Your task to perform on an android device: toggle wifi Image 0: 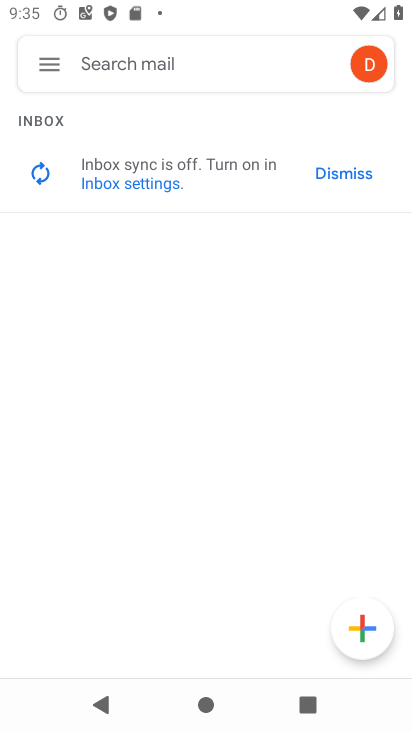
Step 0: press home button
Your task to perform on an android device: toggle wifi Image 1: 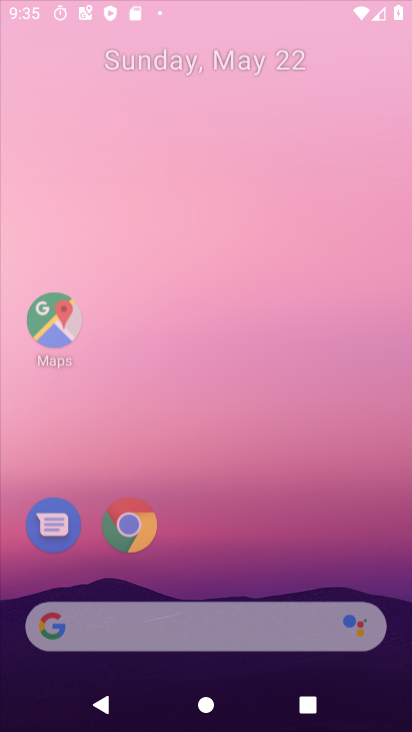
Step 1: drag from (189, 598) to (294, 73)
Your task to perform on an android device: toggle wifi Image 2: 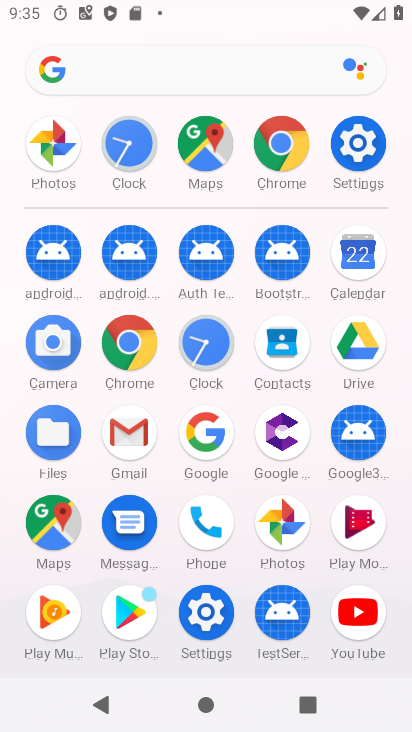
Step 2: click (359, 146)
Your task to perform on an android device: toggle wifi Image 3: 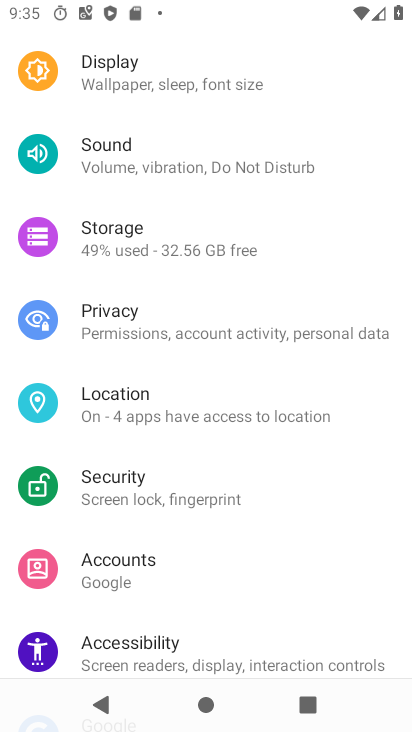
Step 3: drag from (188, 112) to (269, 631)
Your task to perform on an android device: toggle wifi Image 4: 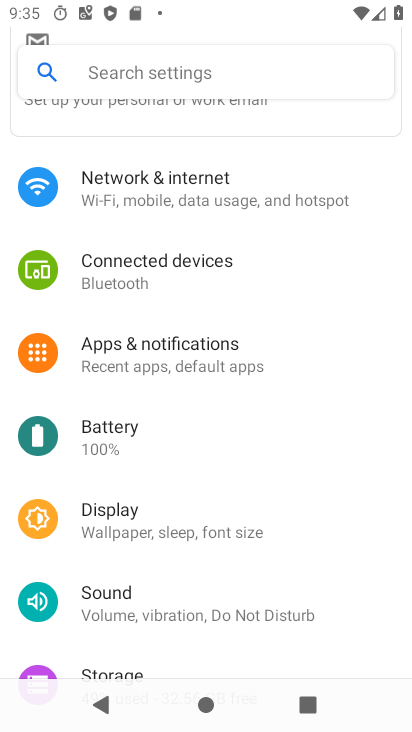
Step 4: click (165, 211)
Your task to perform on an android device: toggle wifi Image 5: 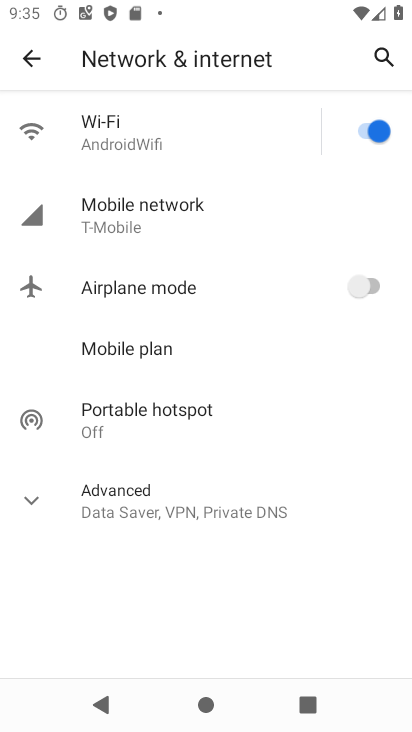
Step 5: click (248, 126)
Your task to perform on an android device: toggle wifi Image 6: 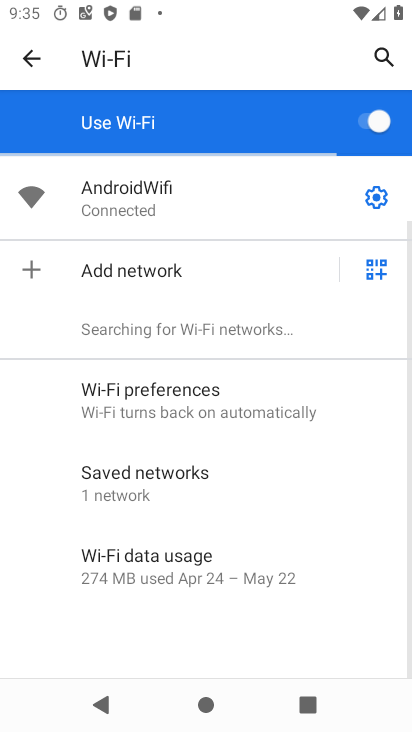
Step 6: click (367, 127)
Your task to perform on an android device: toggle wifi Image 7: 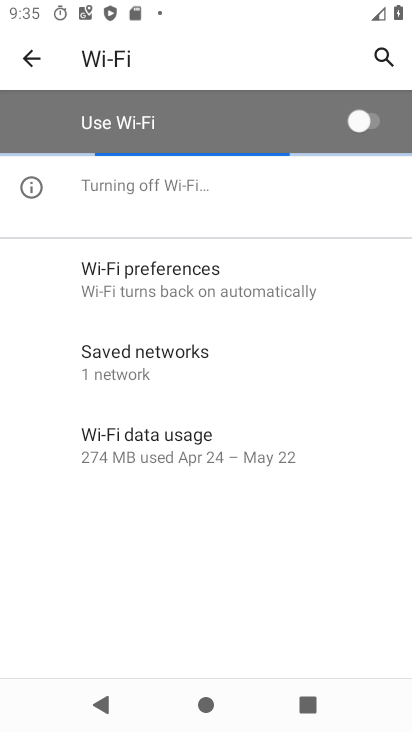
Step 7: task complete